Your task to perform on an android device: Find coffee shops on Maps Image 0: 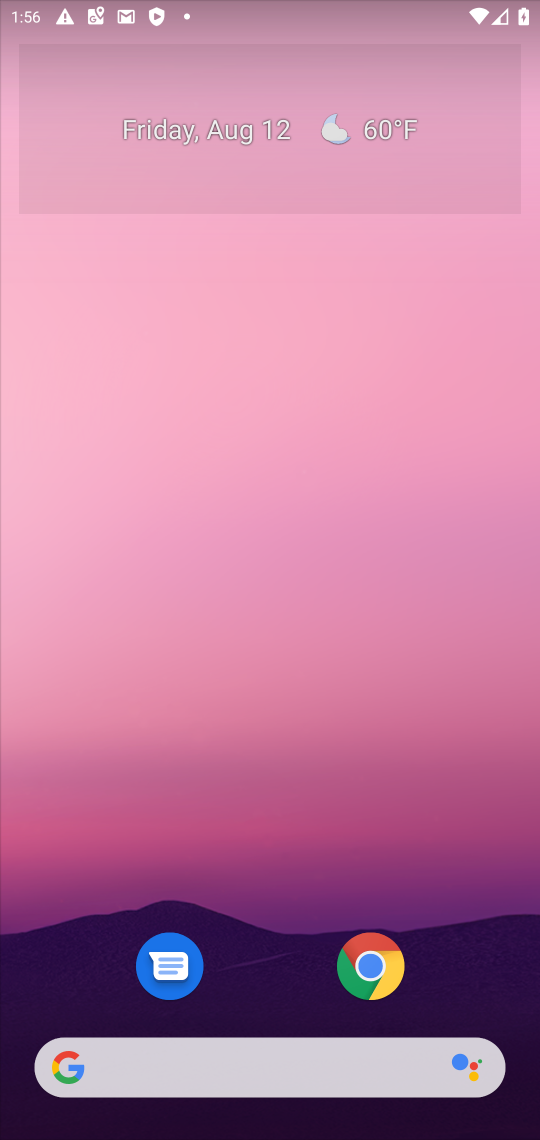
Step 0: drag from (246, 974) to (392, 171)
Your task to perform on an android device: Find coffee shops on Maps Image 1: 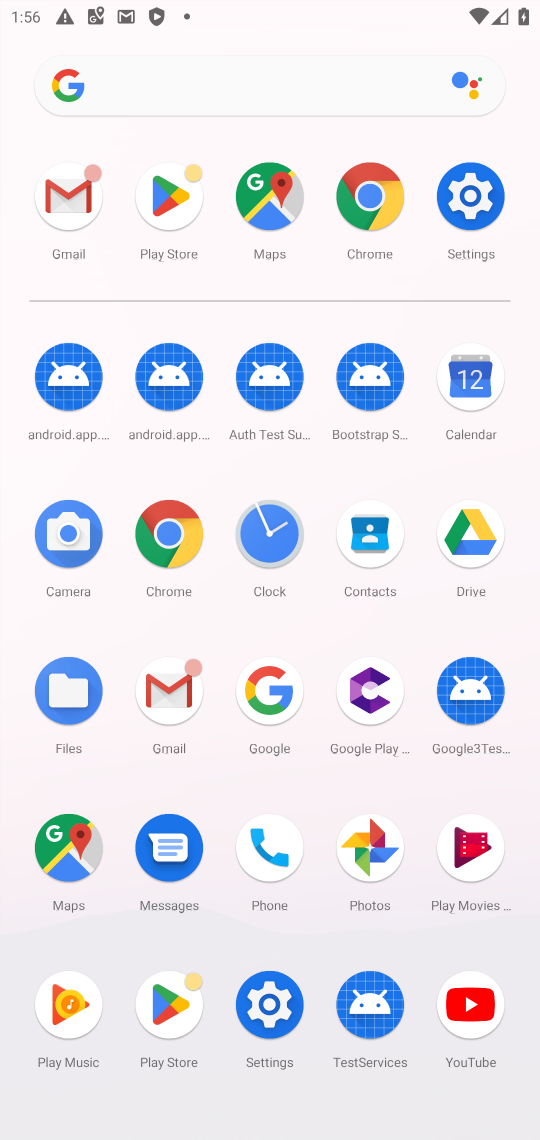
Step 1: click (62, 856)
Your task to perform on an android device: Find coffee shops on Maps Image 2: 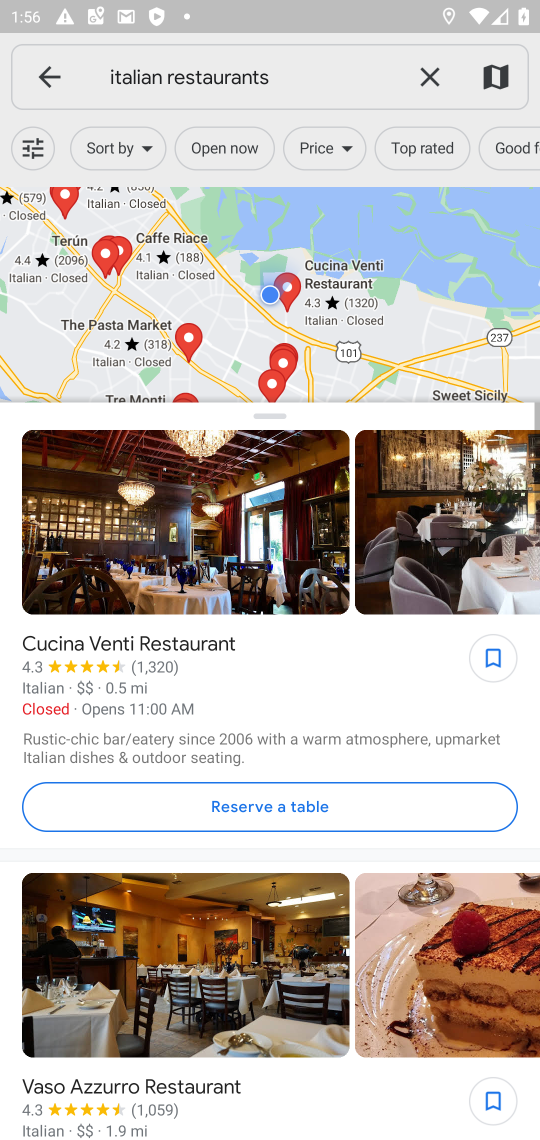
Step 2: click (429, 81)
Your task to perform on an android device: Find coffee shops on Maps Image 3: 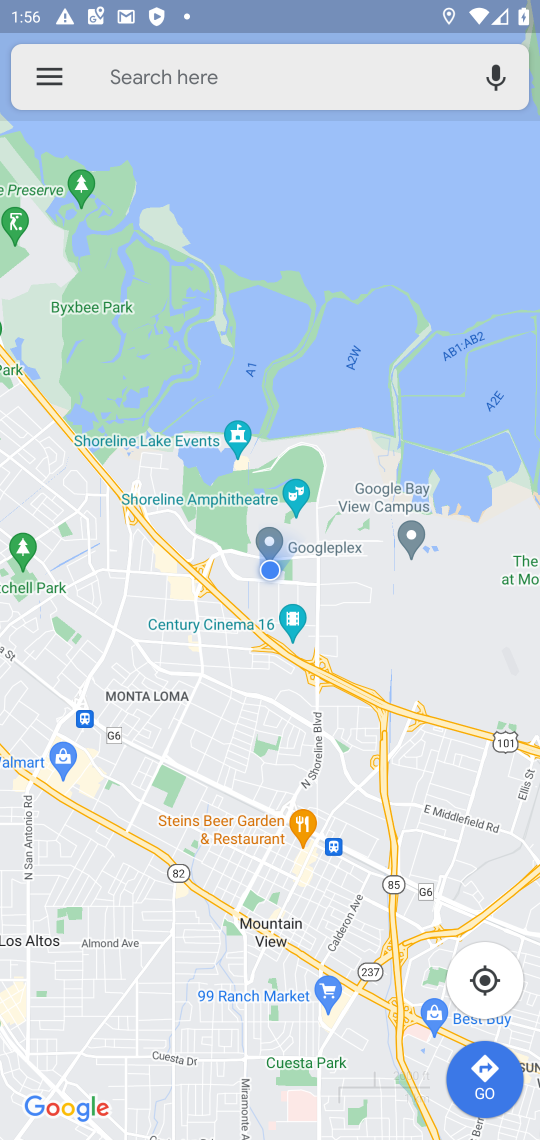
Step 3: click (318, 57)
Your task to perform on an android device: Find coffee shops on Maps Image 4: 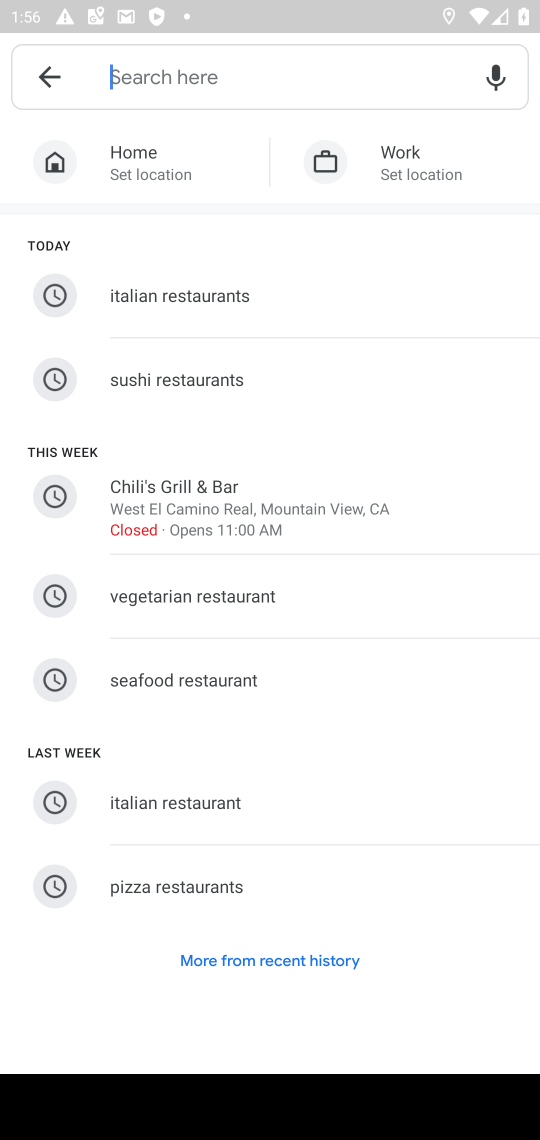
Step 4: type "coffee shops"
Your task to perform on an android device: Find coffee shops on Maps Image 5: 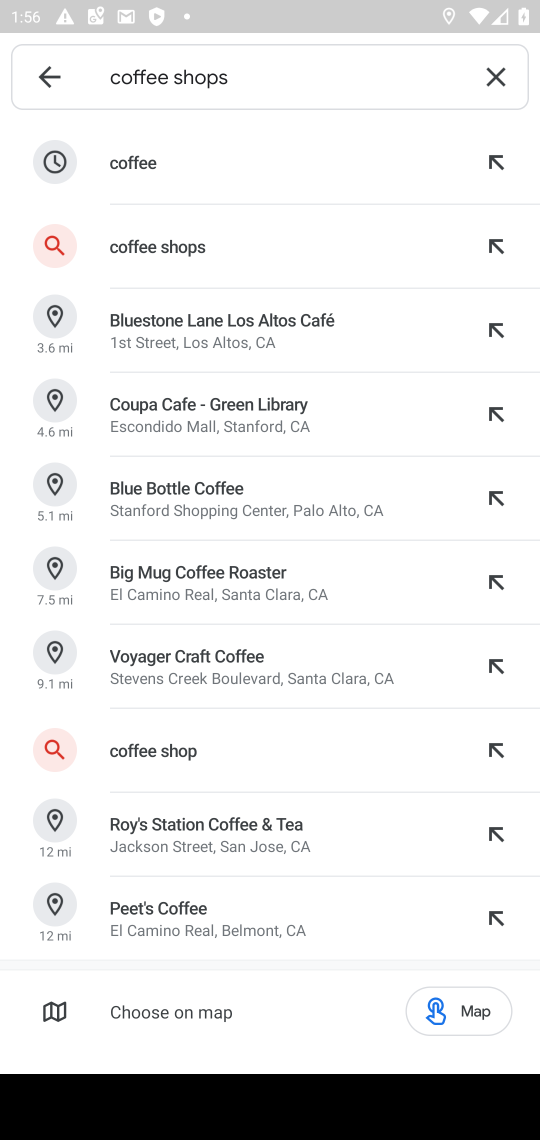
Step 5: press enter
Your task to perform on an android device: Find coffee shops on Maps Image 6: 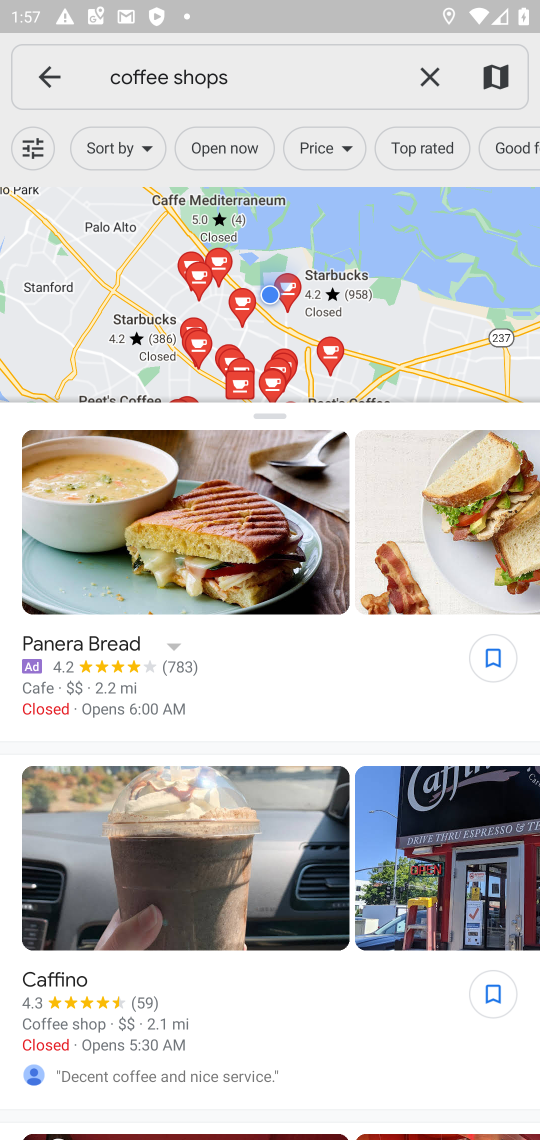
Step 6: task complete